Your task to perform on an android device: all mails in gmail Image 0: 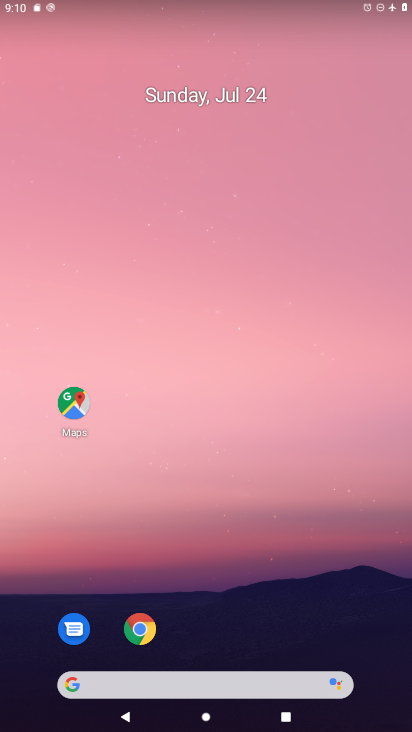
Step 0: drag from (346, 603) to (115, 45)
Your task to perform on an android device: all mails in gmail Image 1: 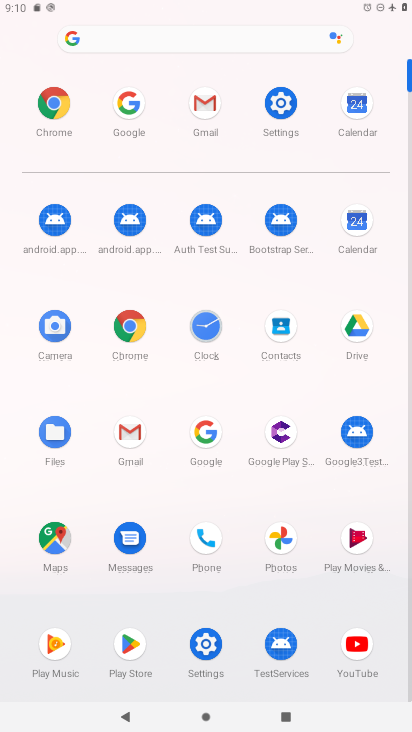
Step 1: click (105, 425)
Your task to perform on an android device: all mails in gmail Image 2: 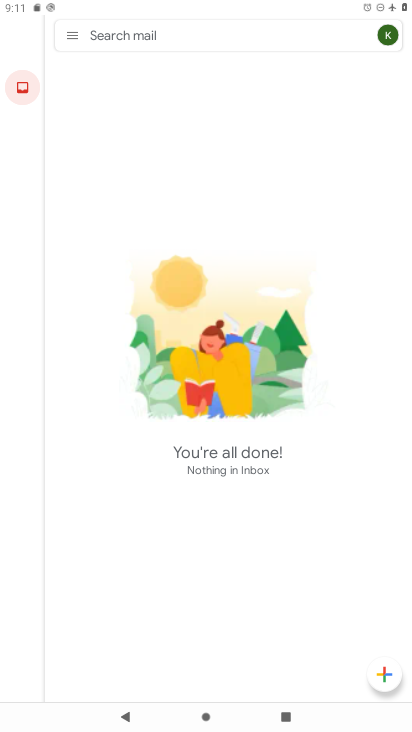
Step 2: click (64, 42)
Your task to perform on an android device: all mails in gmail Image 3: 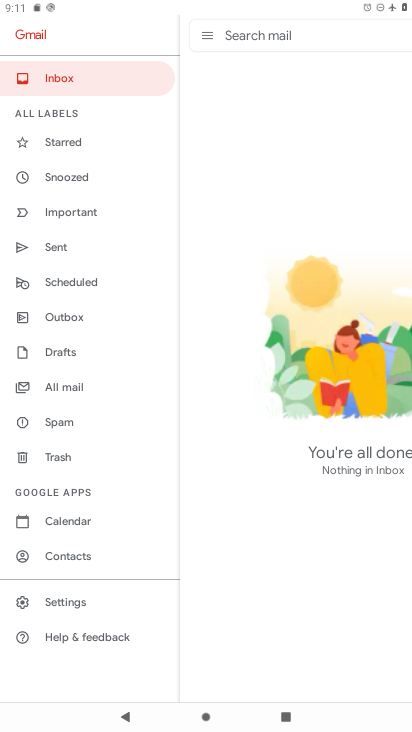
Step 3: click (71, 392)
Your task to perform on an android device: all mails in gmail Image 4: 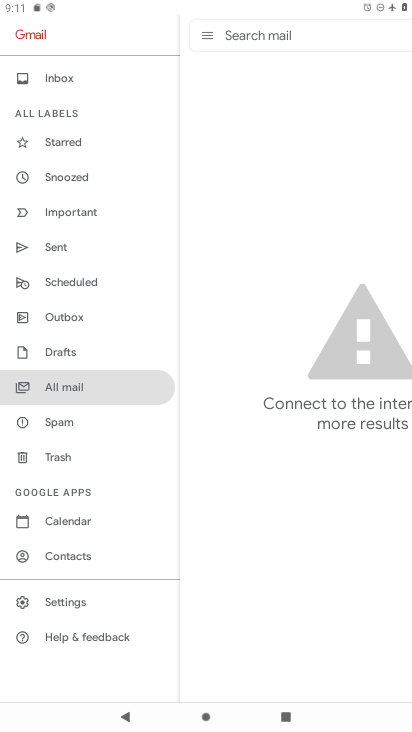
Step 4: task complete